Your task to perform on an android device: Go to Reddit.com Image 0: 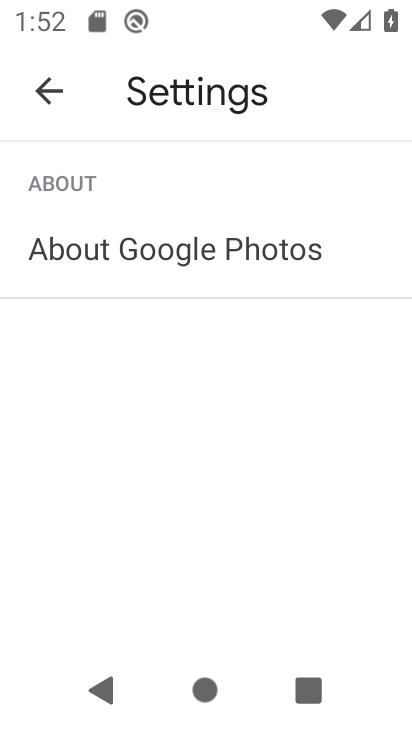
Step 0: press home button
Your task to perform on an android device: Go to Reddit.com Image 1: 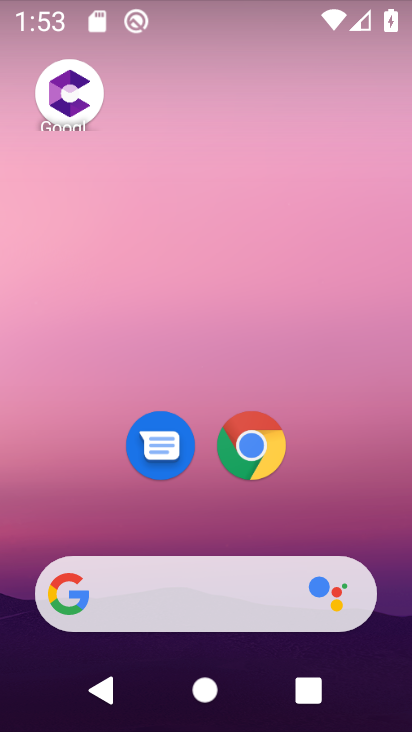
Step 1: click (180, 619)
Your task to perform on an android device: Go to Reddit.com Image 2: 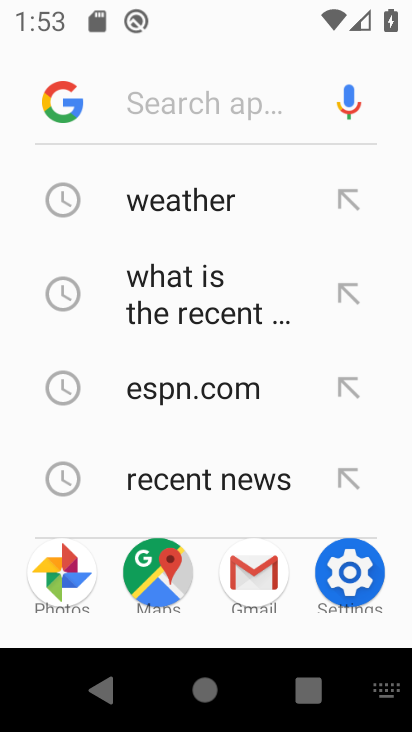
Step 2: type "Reddit.com "
Your task to perform on an android device: Go to Reddit.com Image 3: 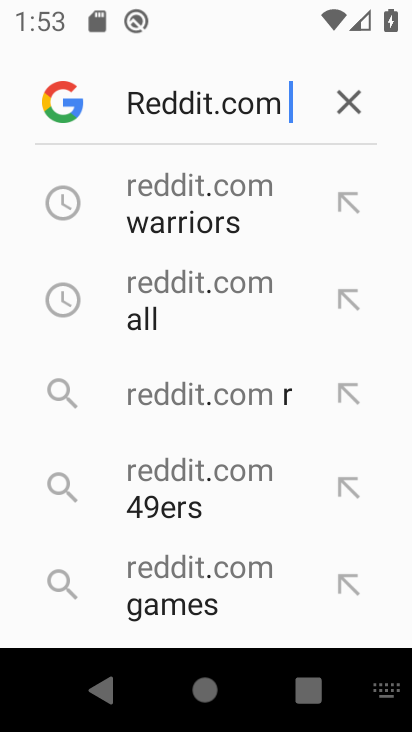
Step 3: click (189, 305)
Your task to perform on an android device: Go to Reddit.com Image 4: 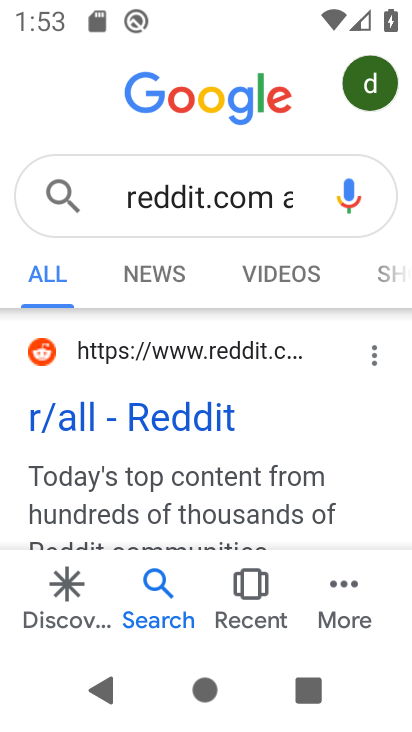
Step 4: click (204, 439)
Your task to perform on an android device: Go to Reddit.com Image 5: 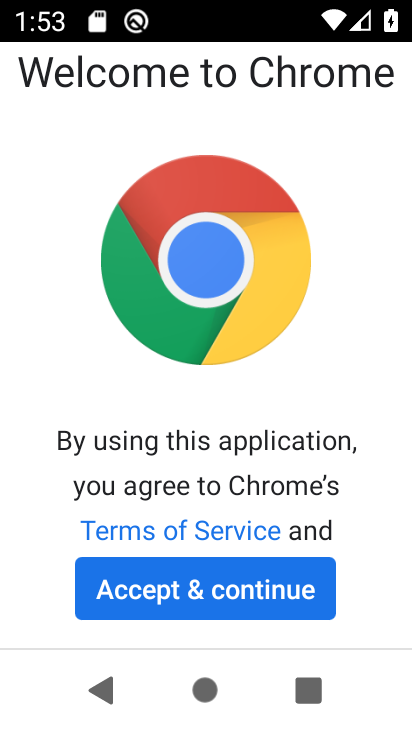
Step 5: click (207, 612)
Your task to perform on an android device: Go to Reddit.com Image 6: 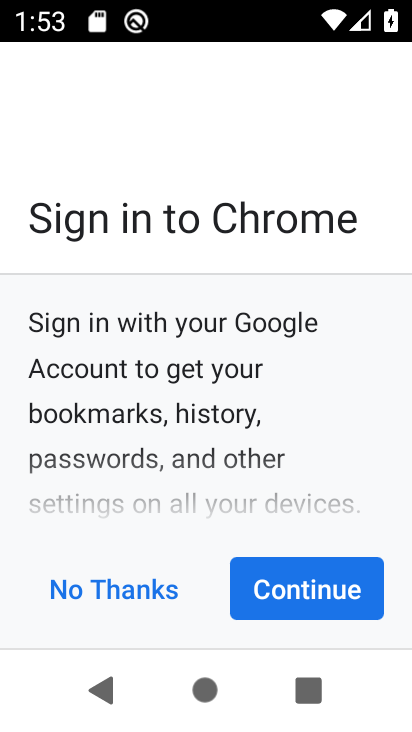
Step 6: click (325, 602)
Your task to perform on an android device: Go to Reddit.com Image 7: 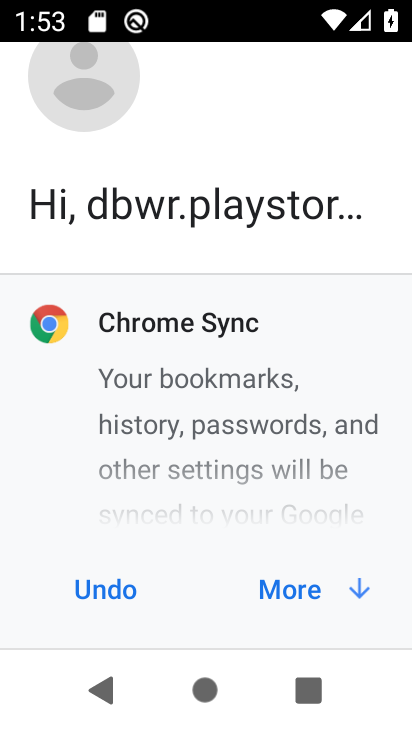
Step 7: click (325, 603)
Your task to perform on an android device: Go to Reddit.com Image 8: 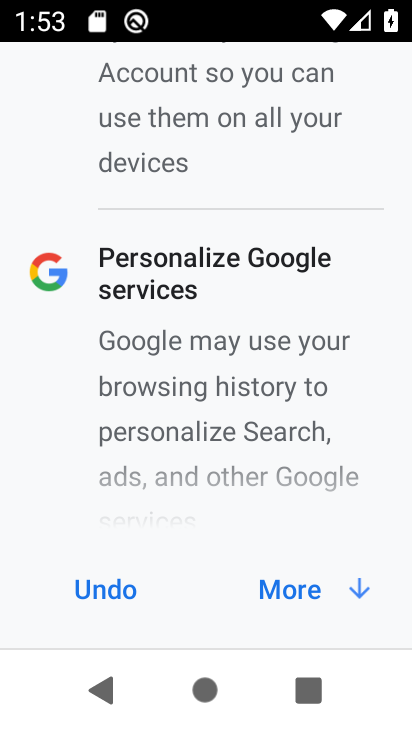
Step 8: click (324, 605)
Your task to perform on an android device: Go to Reddit.com Image 9: 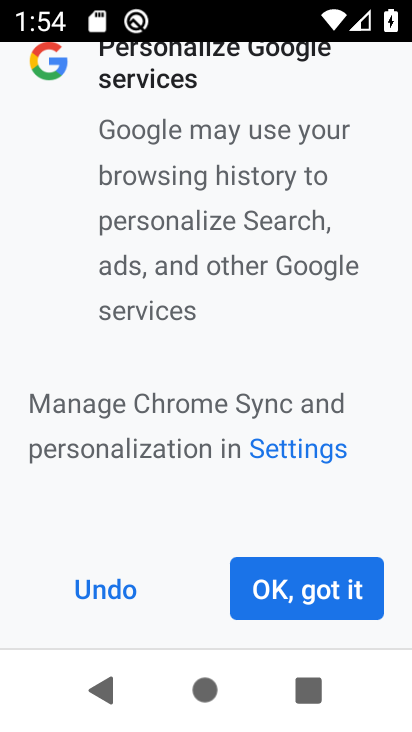
Step 9: click (324, 605)
Your task to perform on an android device: Go to Reddit.com Image 10: 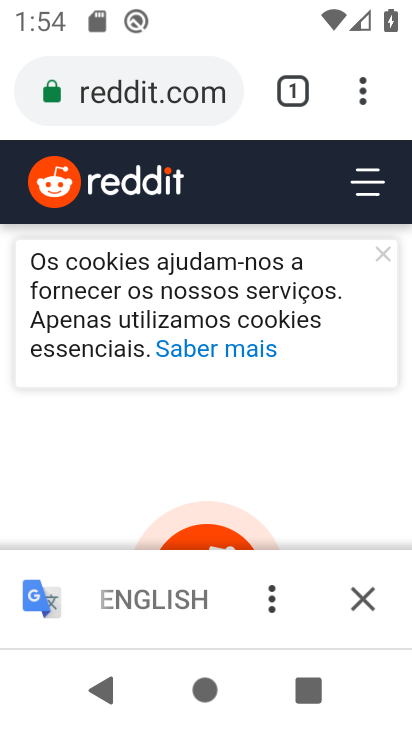
Step 10: click (386, 619)
Your task to perform on an android device: Go to Reddit.com Image 11: 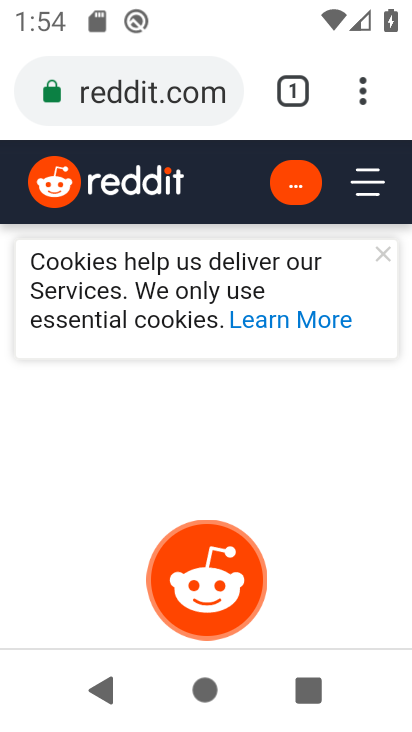
Step 11: task complete